Your task to perform on an android device: Turn on the flashlight Image 0: 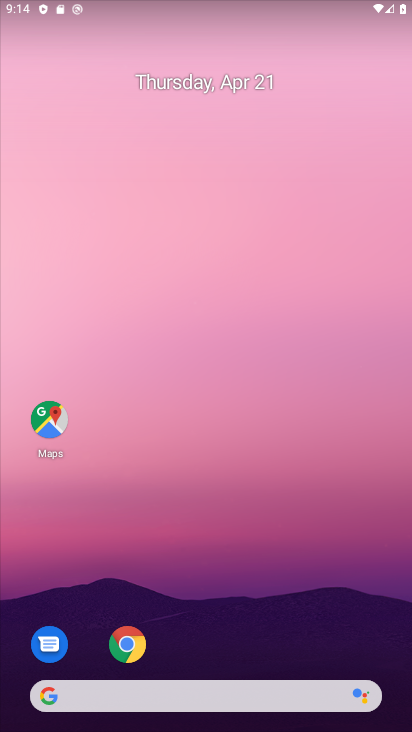
Step 0: drag from (261, 597) to (321, 54)
Your task to perform on an android device: Turn on the flashlight Image 1: 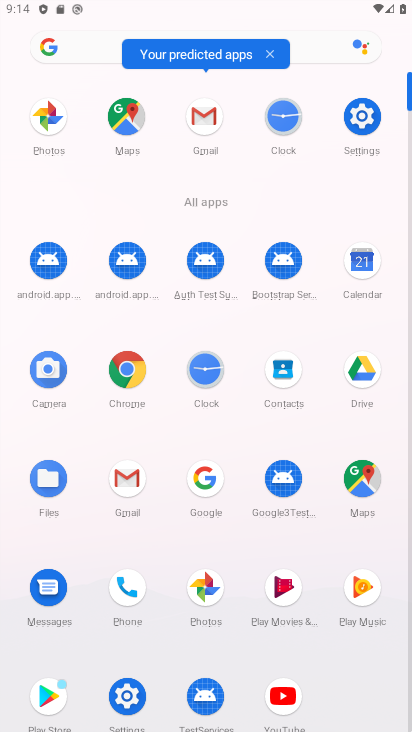
Step 1: click (369, 117)
Your task to perform on an android device: Turn on the flashlight Image 2: 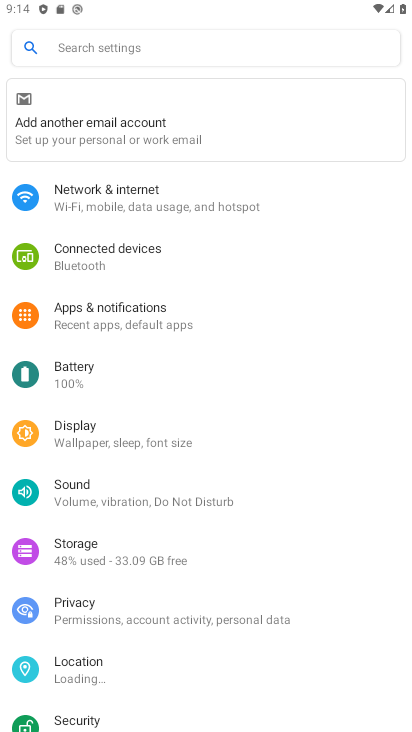
Step 2: click (135, 44)
Your task to perform on an android device: Turn on the flashlight Image 3: 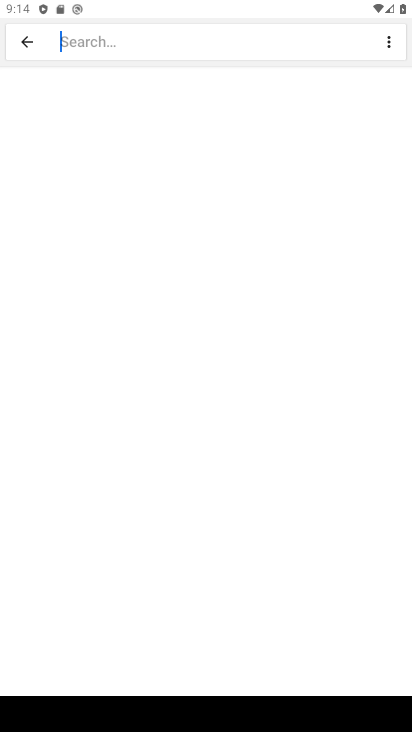
Step 3: type "flashlight"
Your task to perform on an android device: Turn on the flashlight Image 4: 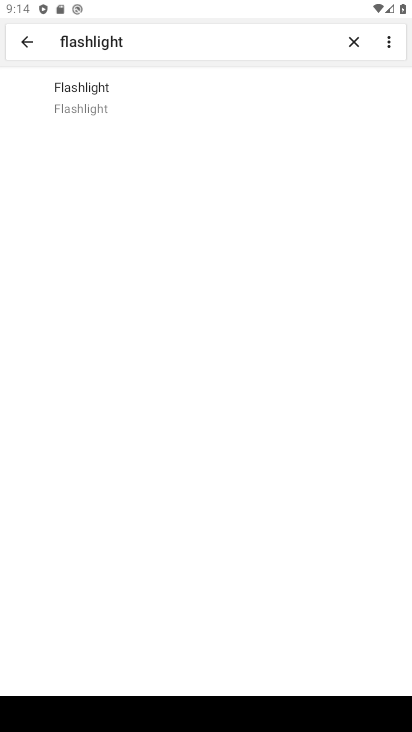
Step 4: click (96, 95)
Your task to perform on an android device: Turn on the flashlight Image 5: 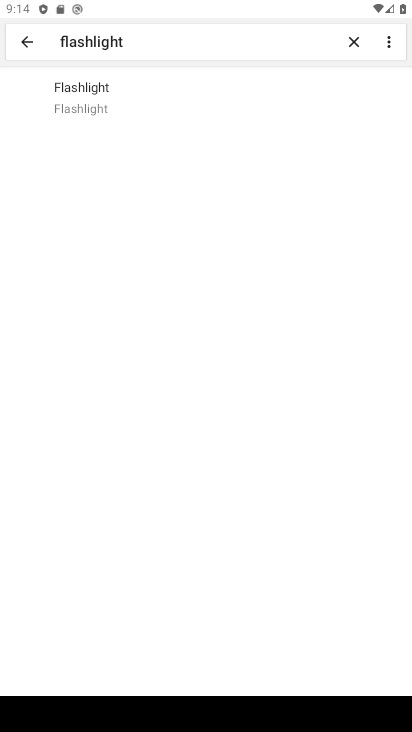
Step 5: task complete